Your task to perform on an android device: Open the Play Movies app and select the watchlist tab. Image 0: 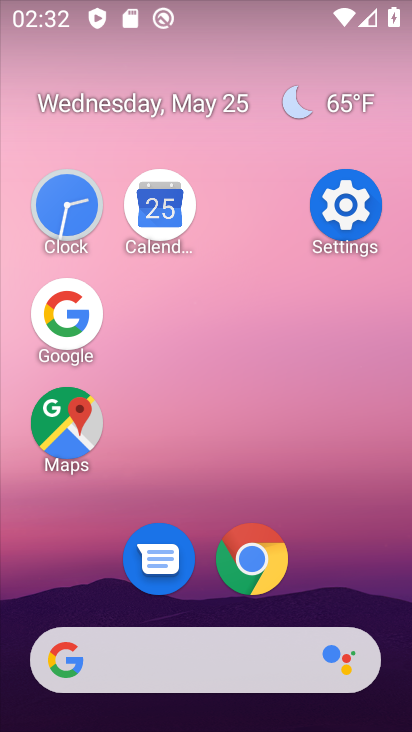
Step 0: drag from (262, 299) to (269, 107)
Your task to perform on an android device: Open the Play Movies app and select the watchlist tab. Image 1: 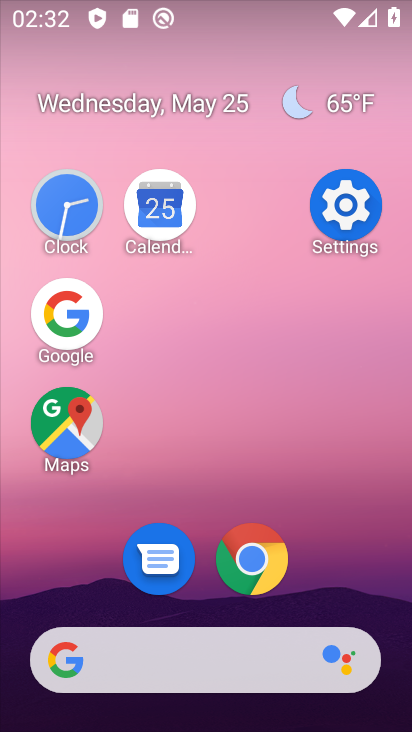
Step 1: drag from (336, 581) to (282, 145)
Your task to perform on an android device: Open the Play Movies app and select the watchlist tab. Image 2: 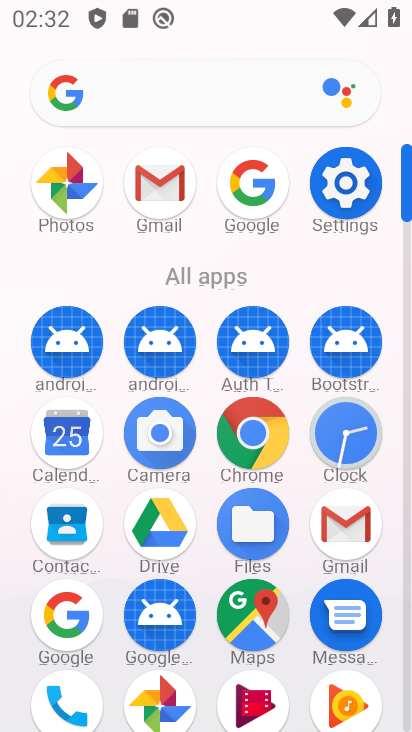
Step 2: drag from (256, 417) to (258, 139)
Your task to perform on an android device: Open the Play Movies app and select the watchlist tab. Image 3: 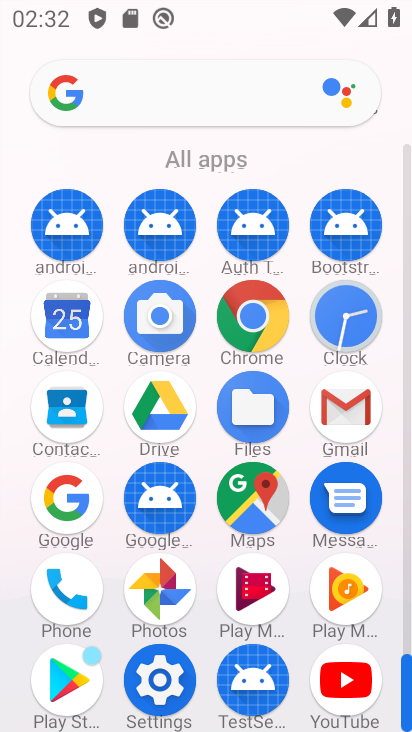
Step 3: click (265, 596)
Your task to perform on an android device: Open the Play Movies app and select the watchlist tab. Image 4: 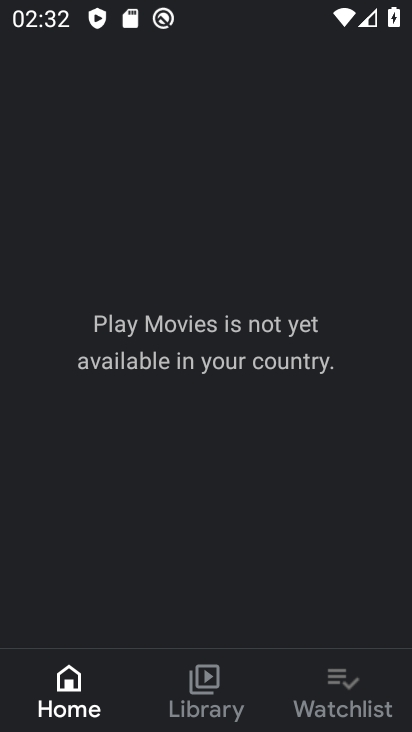
Step 4: click (315, 691)
Your task to perform on an android device: Open the Play Movies app and select the watchlist tab. Image 5: 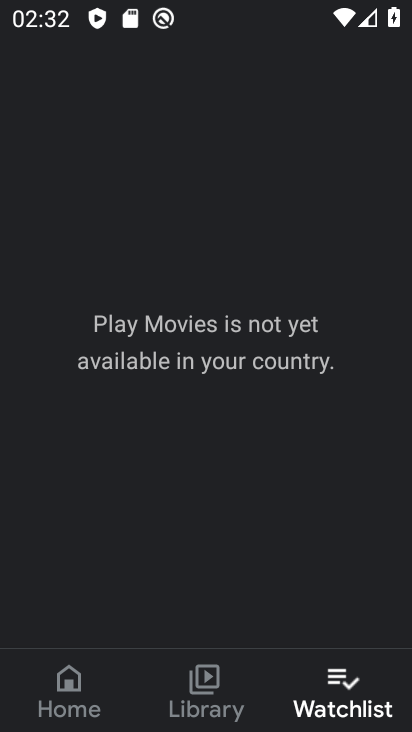
Step 5: task complete